Your task to perform on an android device: turn on translation in the chrome app Image 0: 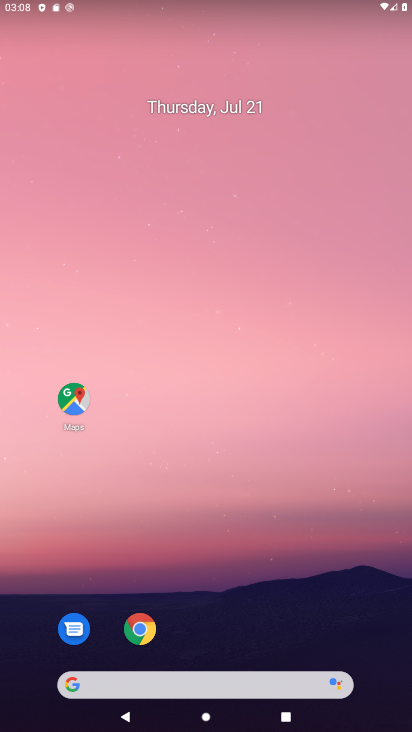
Step 0: drag from (216, 619) to (129, 22)
Your task to perform on an android device: turn on translation in the chrome app Image 1: 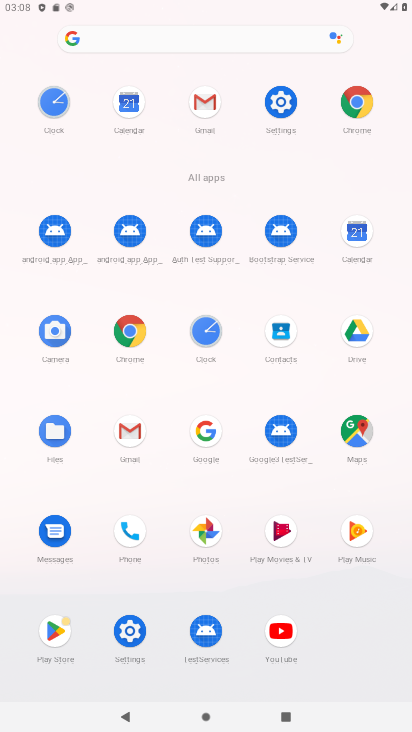
Step 1: click (150, 328)
Your task to perform on an android device: turn on translation in the chrome app Image 2: 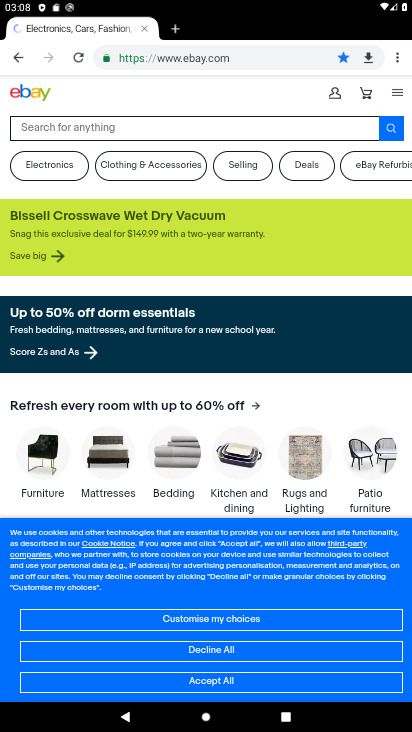
Step 2: drag from (397, 60) to (301, 379)
Your task to perform on an android device: turn on translation in the chrome app Image 3: 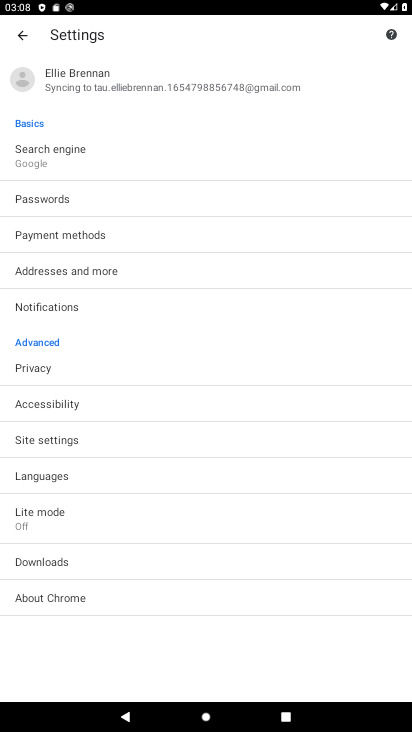
Step 3: click (41, 487)
Your task to perform on an android device: turn on translation in the chrome app Image 4: 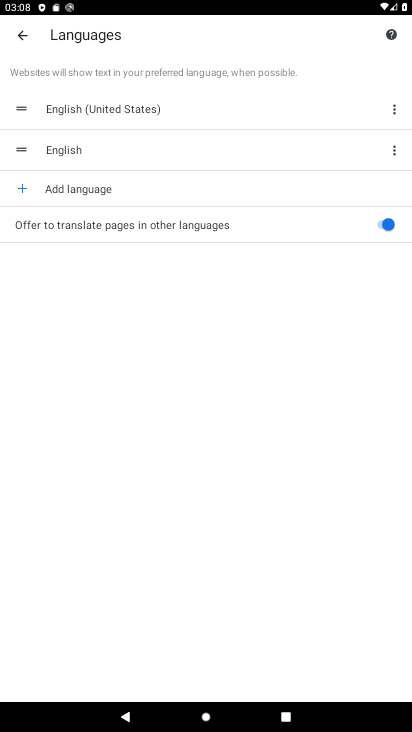
Step 4: task complete